Your task to perform on an android device: Open notification settings Image 0: 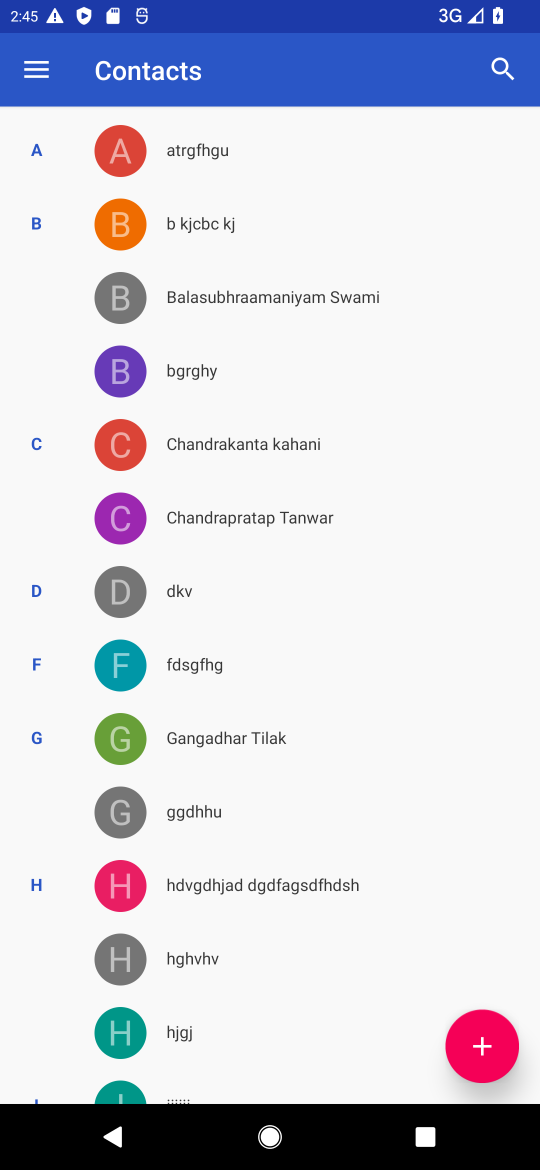
Step 0: press home button
Your task to perform on an android device: Open notification settings Image 1: 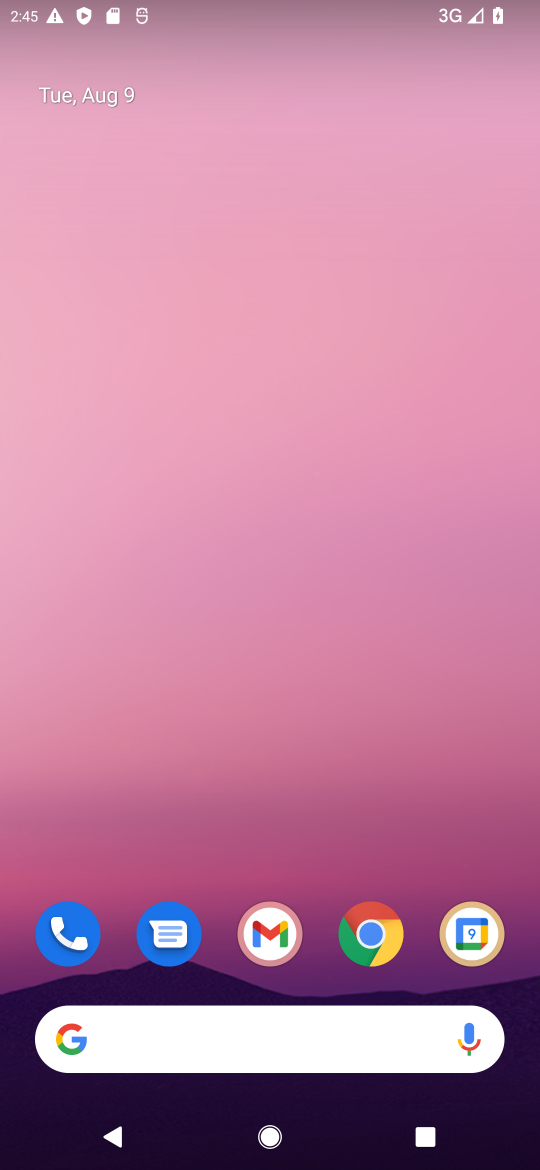
Step 1: drag from (312, 975) to (259, 170)
Your task to perform on an android device: Open notification settings Image 2: 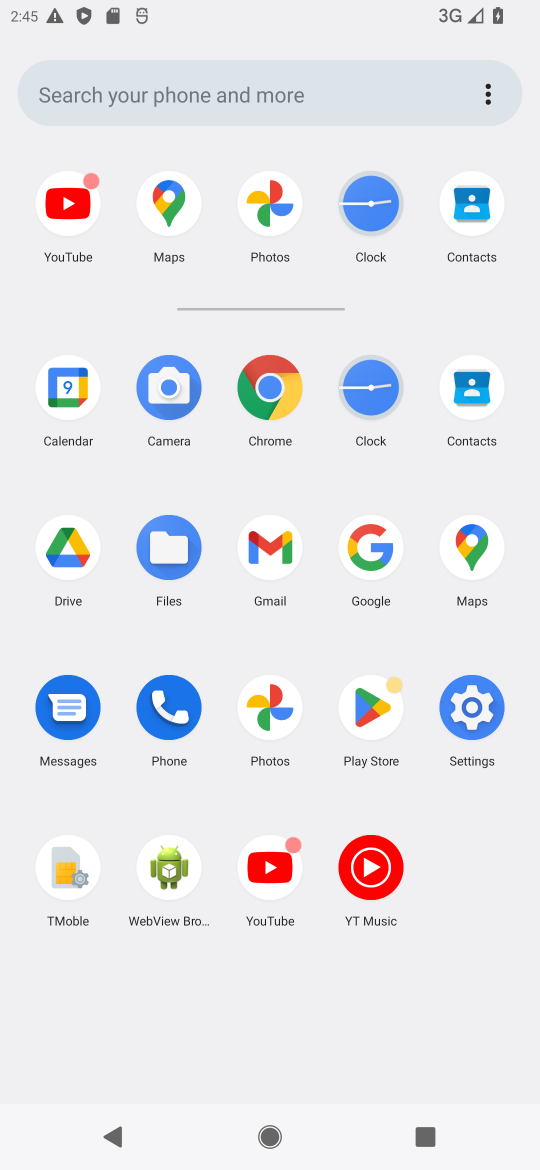
Step 2: click (489, 699)
Your task to perform on an android device: Open notification settings Image 3: 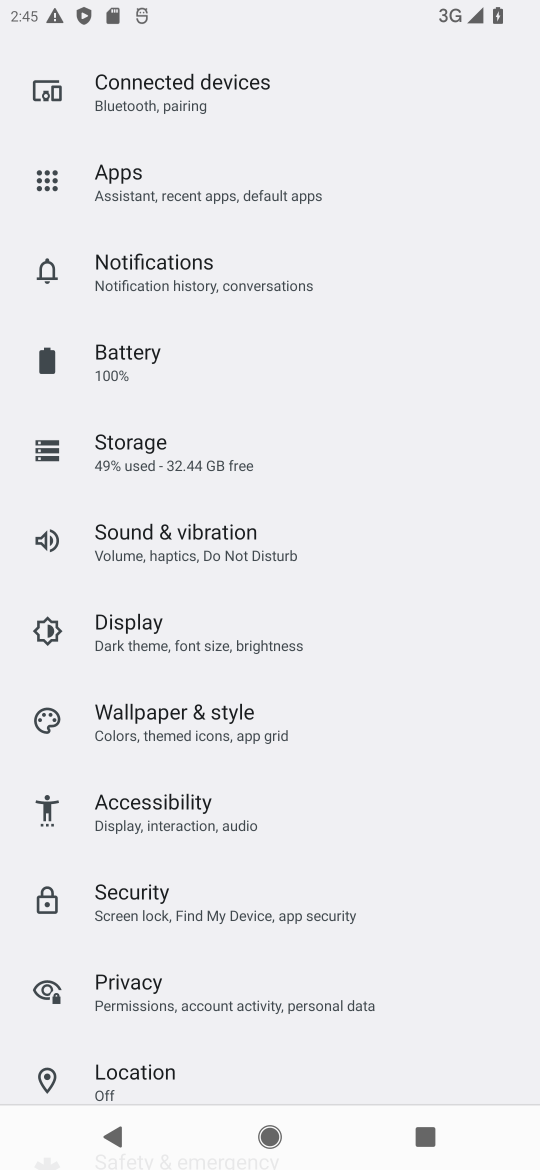
Step 3: click (136, 281)
Your task to perform on an android device: Open notification settings Image 4: 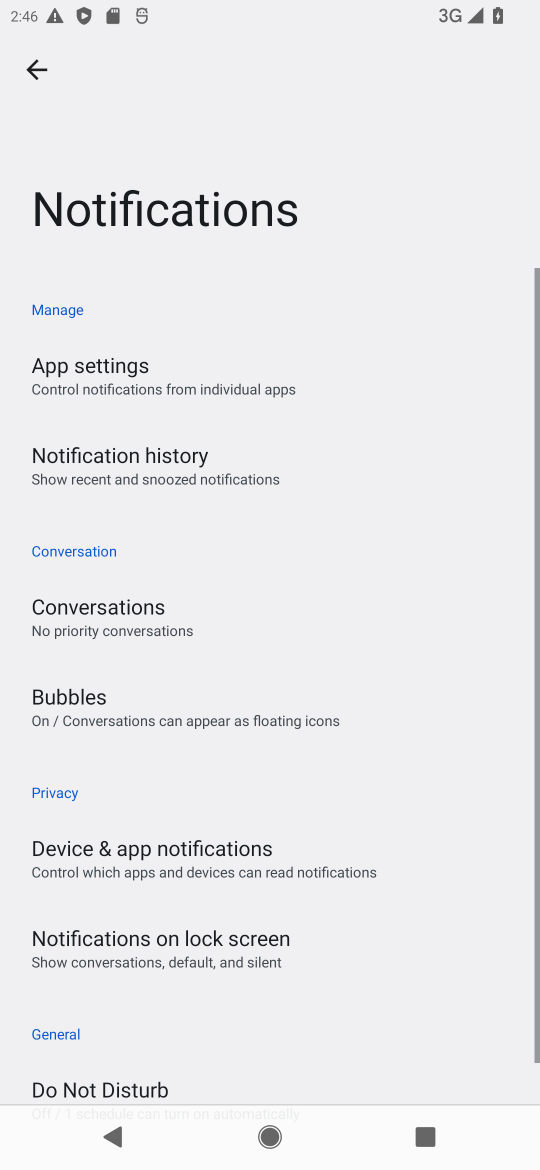
Step 4: task complete